Your task to perform on an android device: Open internet settings Image 0: 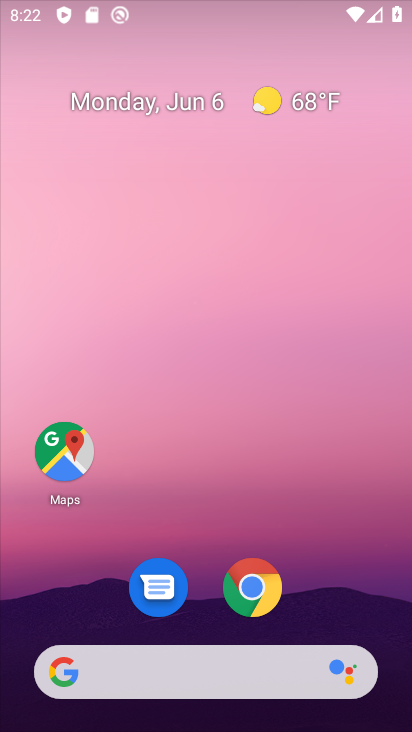
Step 0: drag from (234, 680) to (224, 104)
Your task to perform on an android device: Open internet settings Image 1: 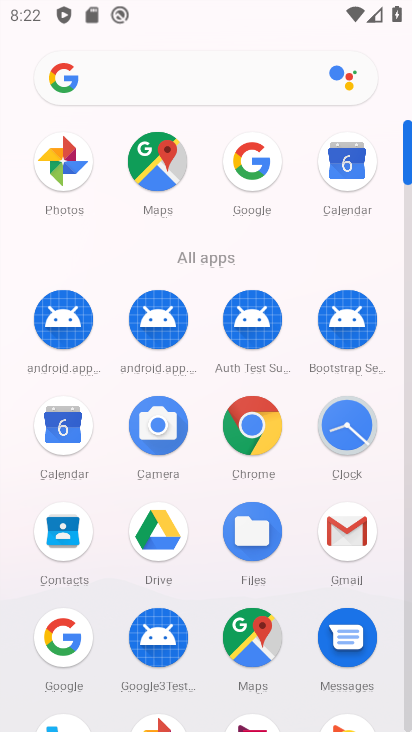
Step 1: drag from (217, 572) to (196, 89)
Your task to perform on an android device: Open internet settings Image 2: 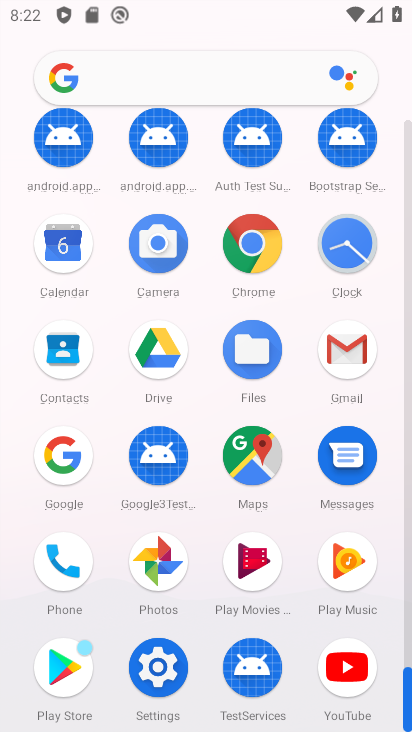
Step 2: click (172, 681)
Your task to perform on an android device: Open internet settings Image 3: 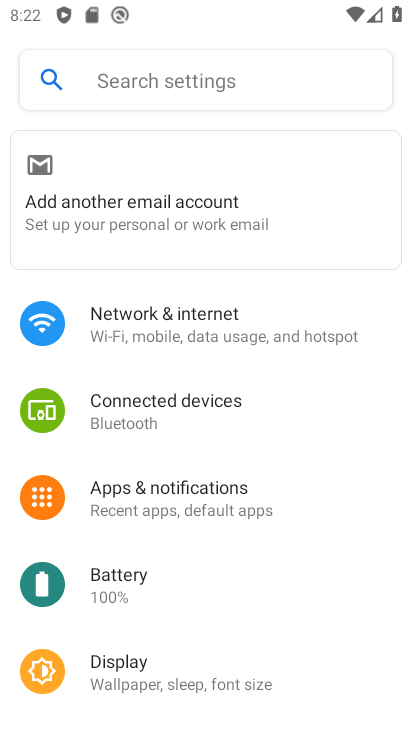
Step 3: click (151, 590)
Your task to perform on an android device: Open internet settings Image 4: 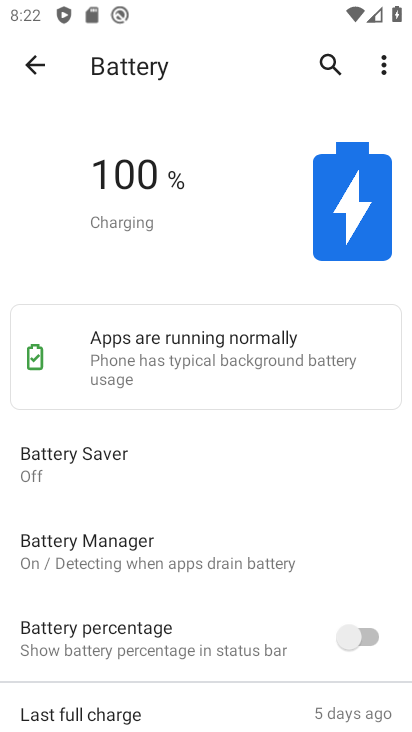
Step 4: task complete